Your task to perform on an android device: Turn off the flashlight Image 0: 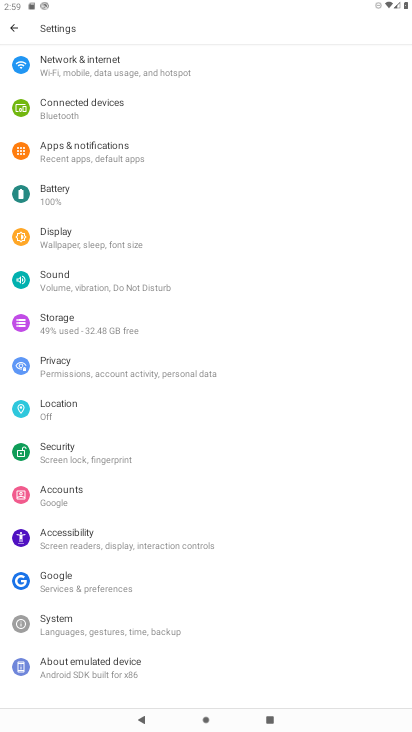
Step 0: press home button
Your task to perform on an android device: Turn off the flashlight Image 1: 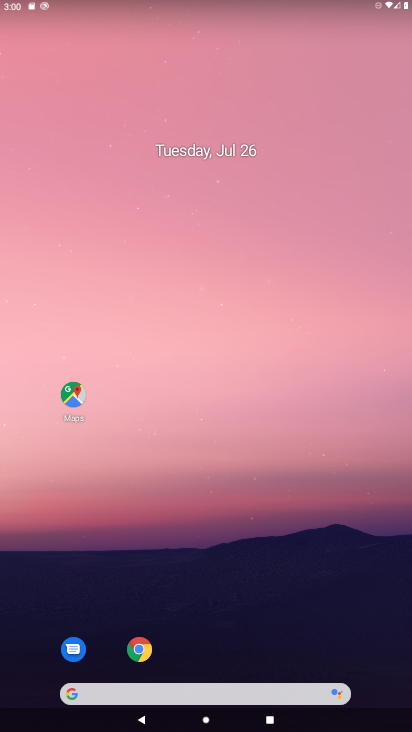
Step 1: task complete